Your task to perform on an android device: Go to sound settings Image 0: 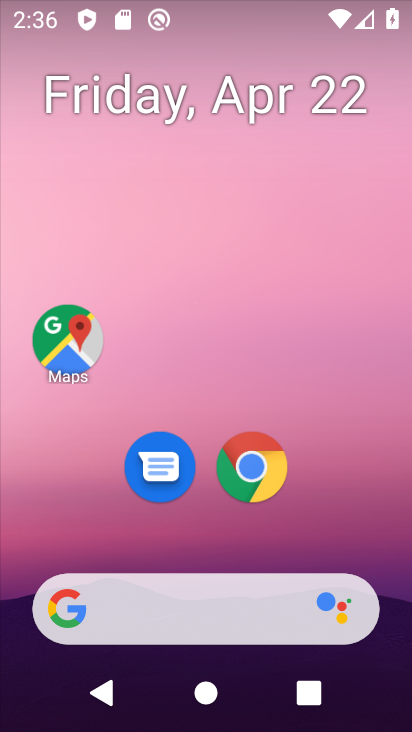
Step 0: drag from (340, 495) to (366, 17)
Your task to perform on an android device: Go to sound settings Image 1: 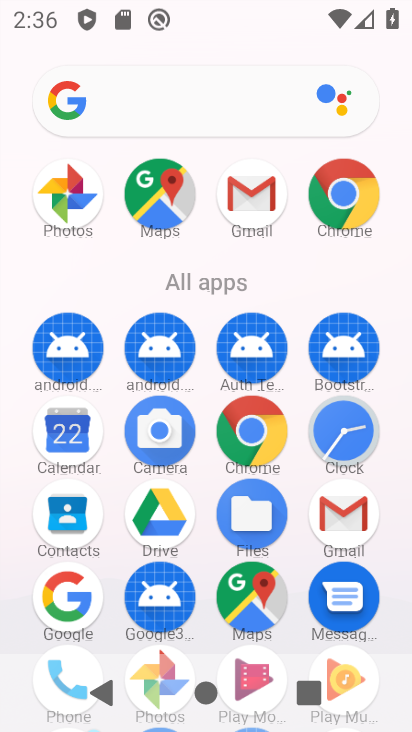
Step 1: click (411, 582)
Your task to perform on an android device: Go to sound settings Image 2: 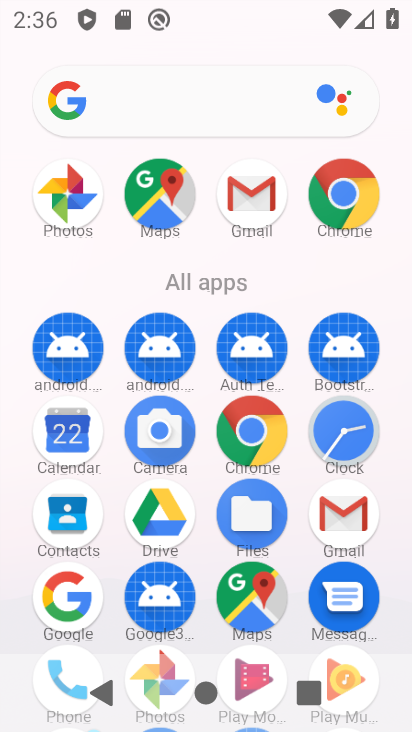
Step 2: click (408, 593)
Your task to perform on an android device: Go to sound settings Image 3: 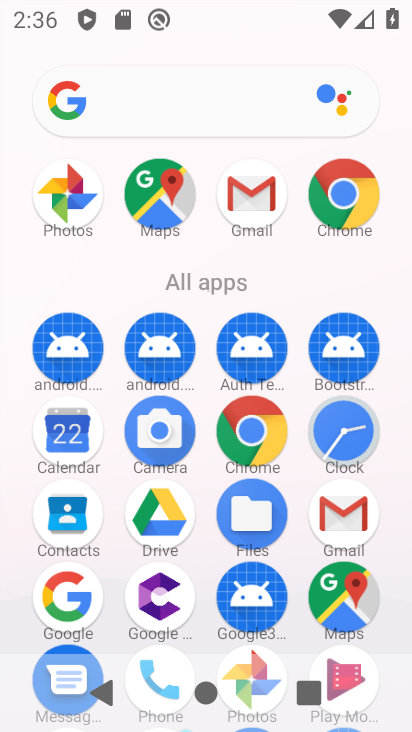
Step 3: drag from (397, 617) to (387, 295)
Your task to perform on an android device: Go to sound settings Image 4: 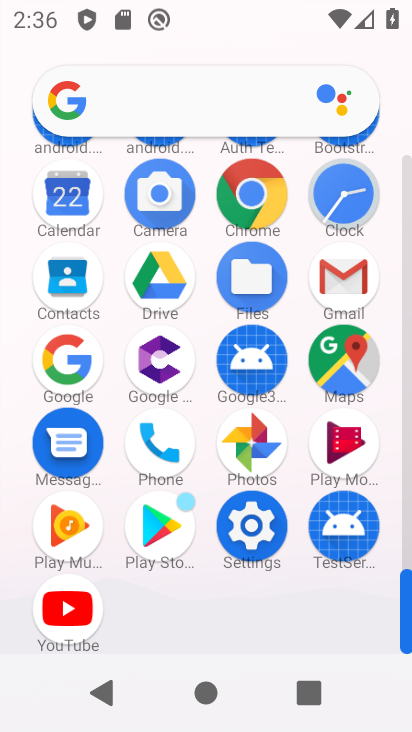
Step 4: click (247, 509)
Your task to perform on an android device: Go to sound settings Image 5: 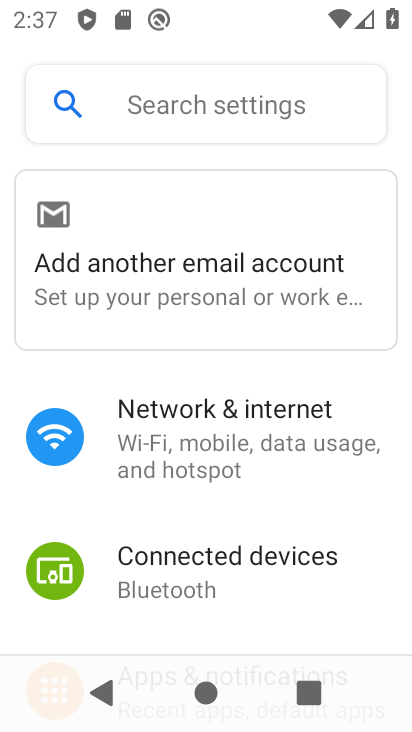
Step 5: drag from (235, 1) to (171, 2)
Your task to perform on an android device: Go to sound settings Image 6: 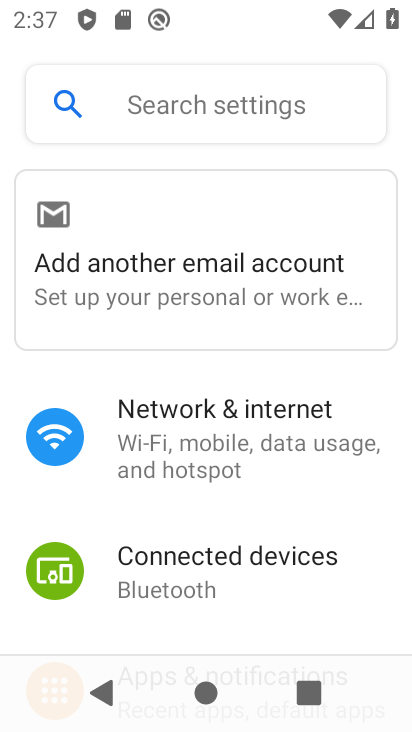
Step 6: drag from (259, 617) to (207, 128)
Your task to perform on an android device: Go to sound settings Image 7: 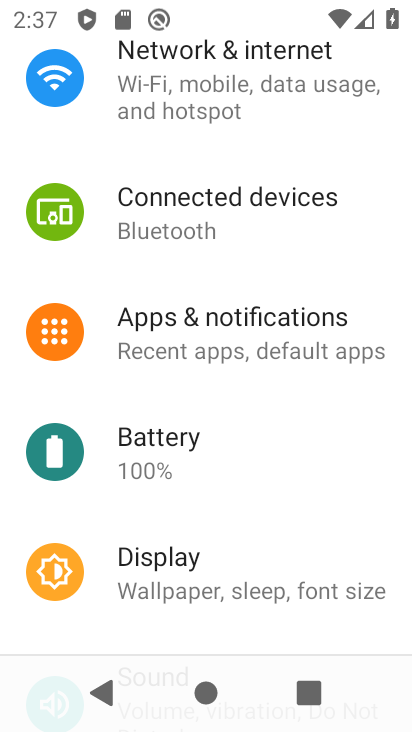
Step 7: drag from (267, 500) to (218, 110)
Your task to perform on an android device: Go to sound settings Image 8: 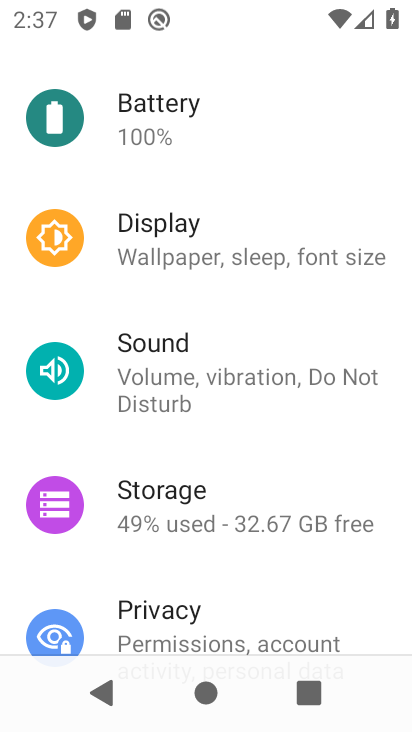
Step 8: click (305, 398)
Your task to perform on an android device: Go to sound settings Image 9: 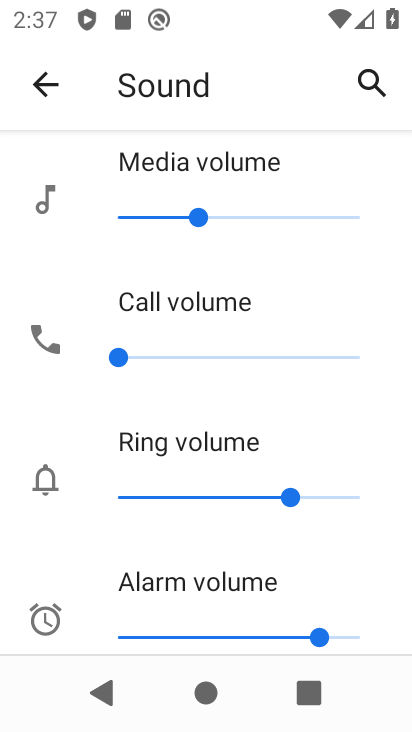
Step 9: task complete